Your task to perform on an android device: What's on my calendar tomorrow? Image 0: 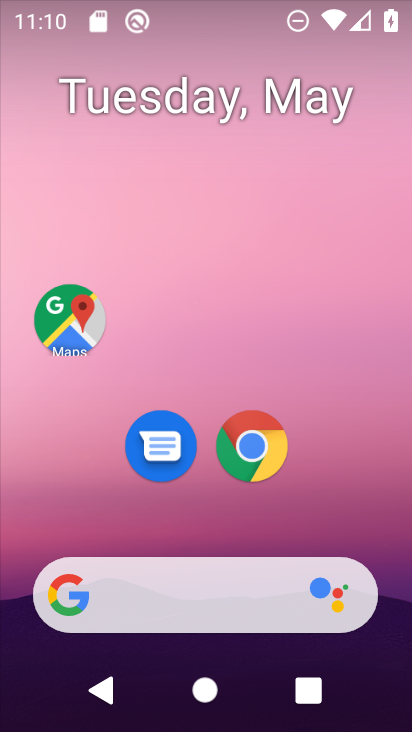
Step 0: drag from (188, 540) to (357, 41)
Your task to perform on an android device: What's on my calendar tomorrow? Image 1: 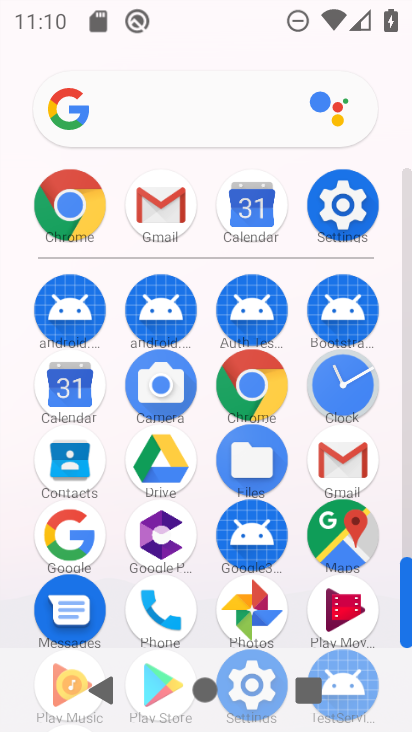
Step 1: click (64, 383)
Your task to perform on an android device: What's on my calendar tomorrow? Image 2: 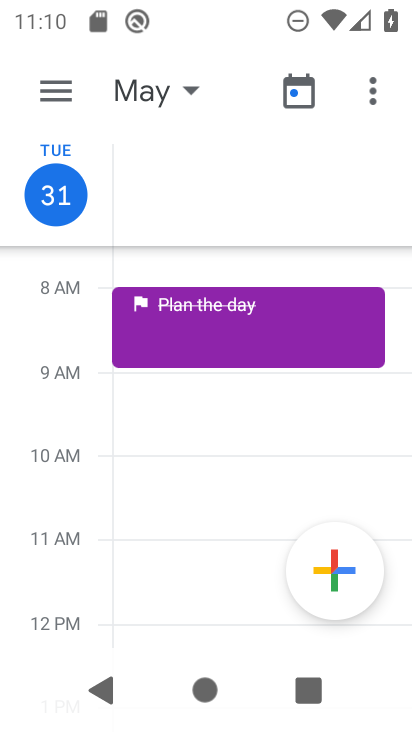
Step 2: click (62, 87)
Your task to perform on an android device: What's on my calendar tomorrow? Image 3: 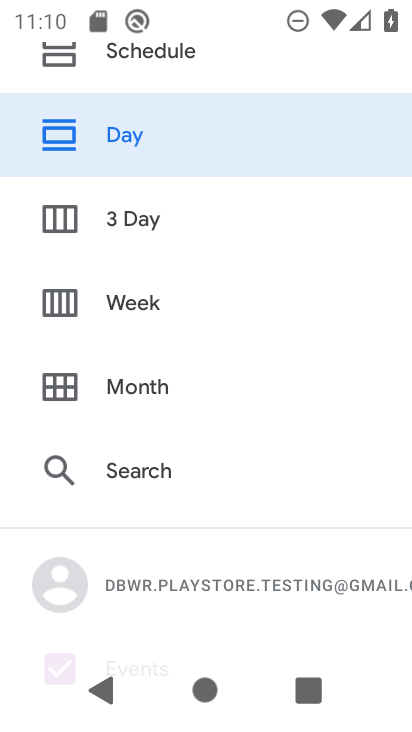
Step 3: click (148, 234)
Your task to perform on an android device: What's on my calendar tomorrow? Image 4: 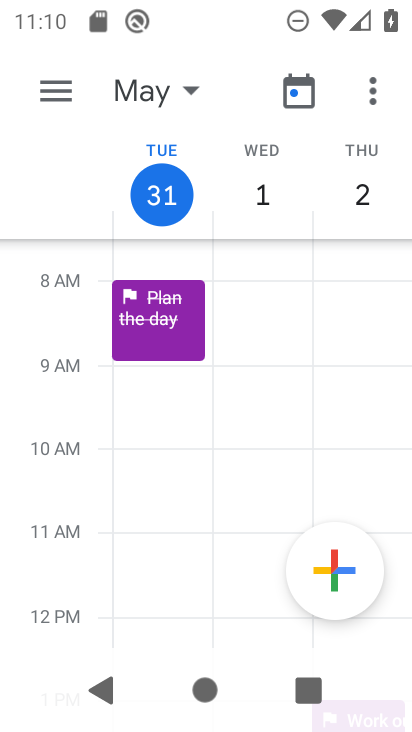
Step 4: task complete